Your task to perform on an android device: toggle sleep mode Image 0: 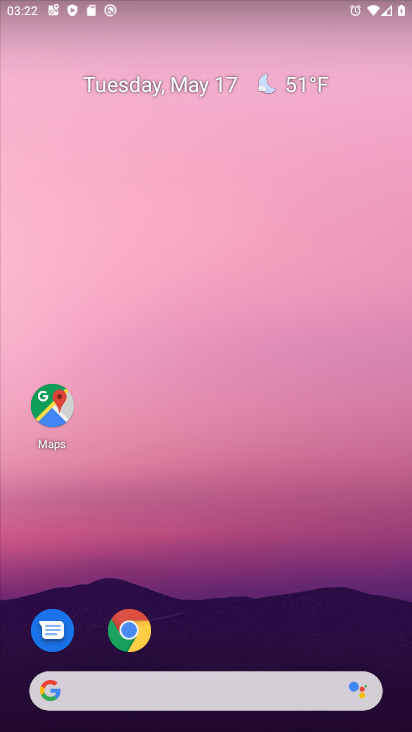
Step 0: drag from (246, 629) to (263, 1)
Your task to perform on an android device: toggle sleep mode Image 1: 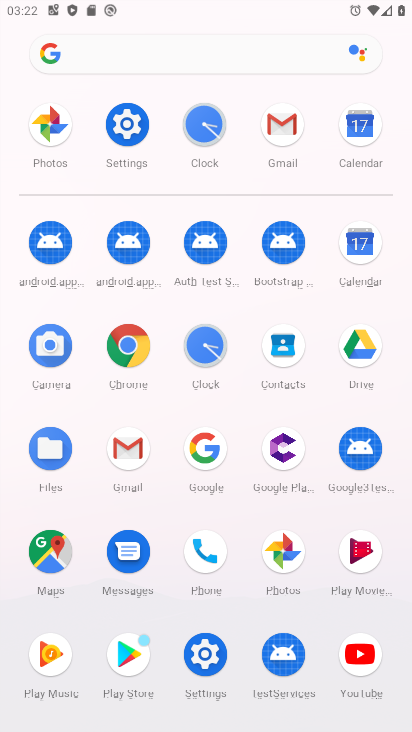
Step 1: click (130, 124)
Your task to perform on an android device: toggle sleep mode Image 2: 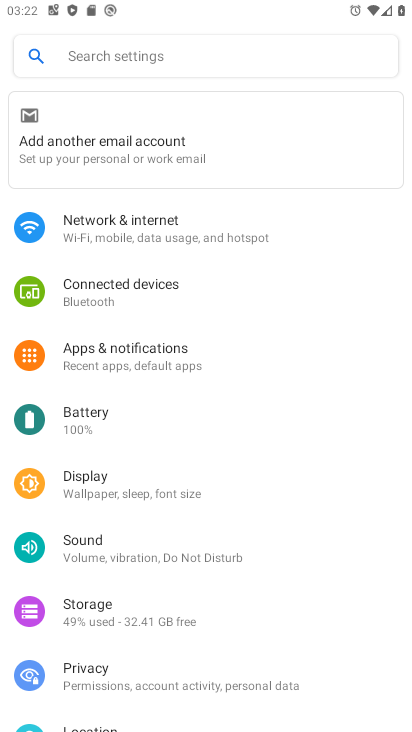
Step 2: click (103, 63)
Your task to perform on an android device: toggle sleep mode Image 3: 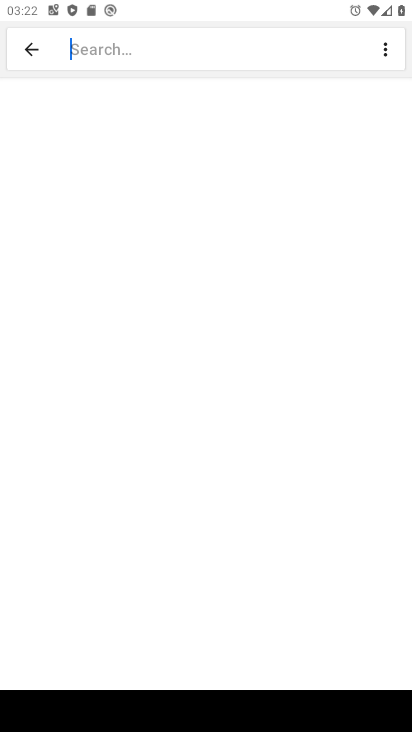
Step 3: type "sleep mode"
Your task to perform on an android device: toggle sleep mode Image 4: 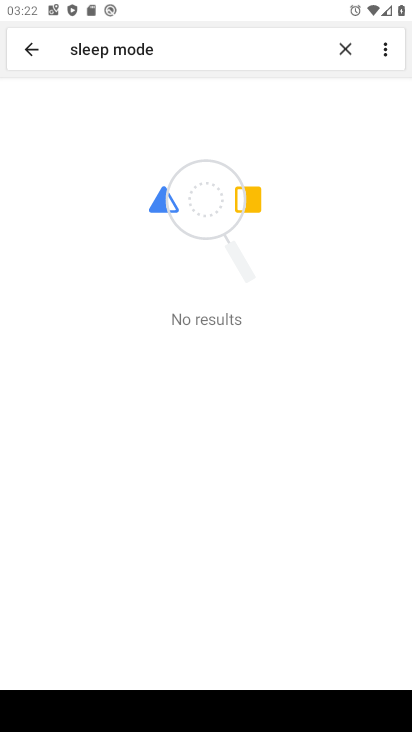
Step 4: task complete